Your task to perform on an android device: set an alarm Image 0: 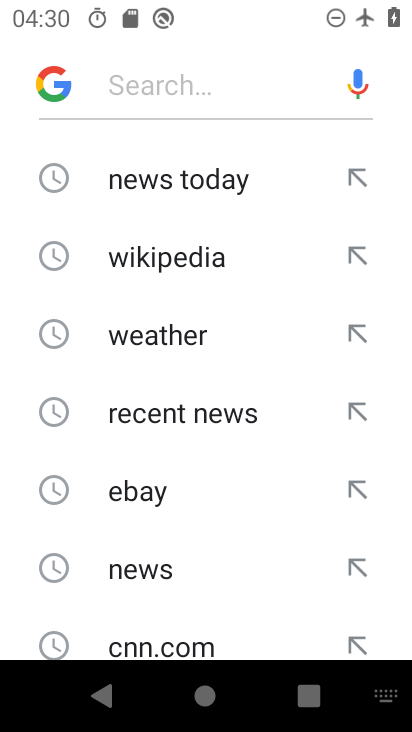
Step 0: press back button
Your task to perform on an android device: set an alarm Image 1: 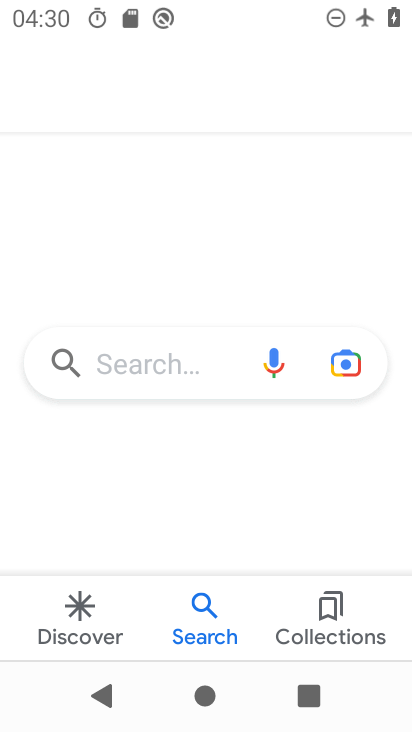
Step 1: press back button
Your task to perform on an android device: set an alarm Image 2: 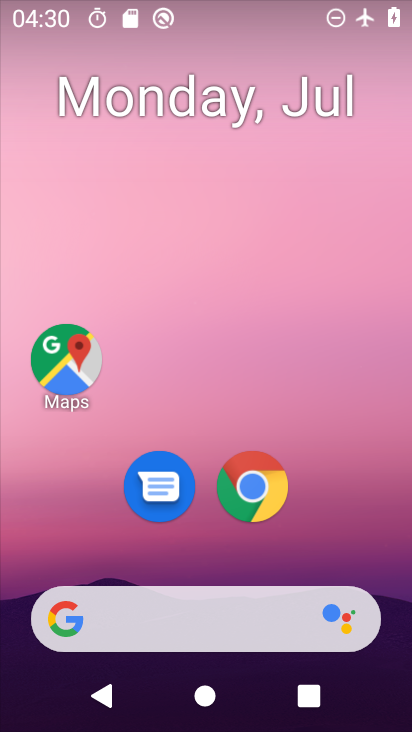
Step 2: drag from (226, 555) to (270, 0)
Your task to perform on an android device: set an alarm Image 3: 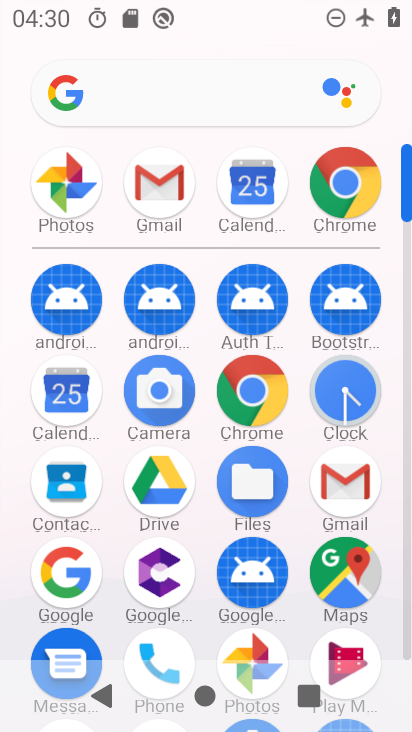
Step 3: click (342, 396)
Your task to perform on an android device: set an alarm Image 4: 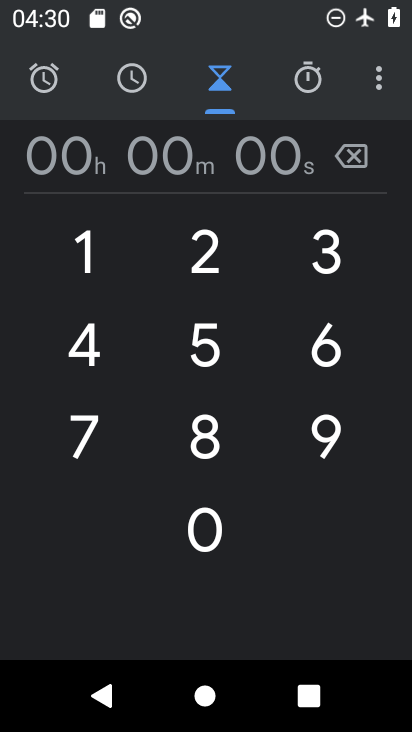
Step 4: click (40, 69)
Your task to perform on an android device: set an alarm Image 5: 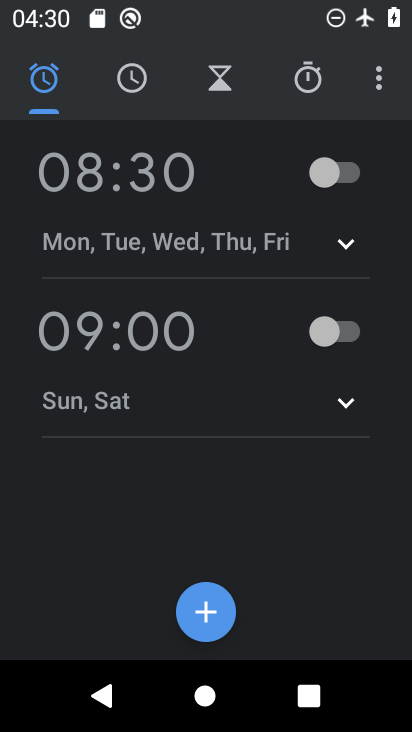
Step 5: click (323, 166)
Your task to perform on an android device: set an alarm Image 6: 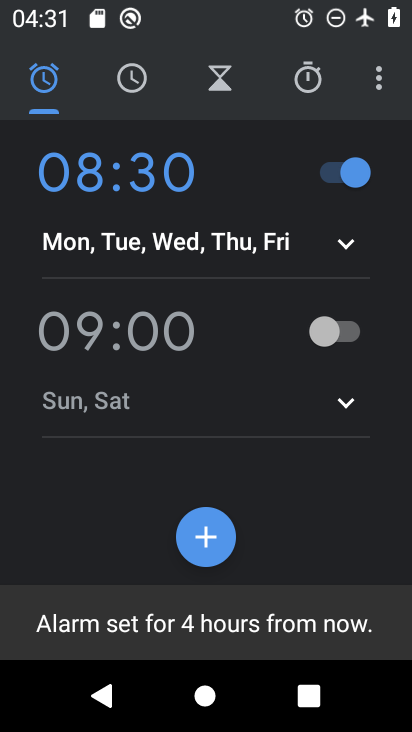
Step 6: task complete